Your task to perform on an android device: Is it going to rain today? Image 0: 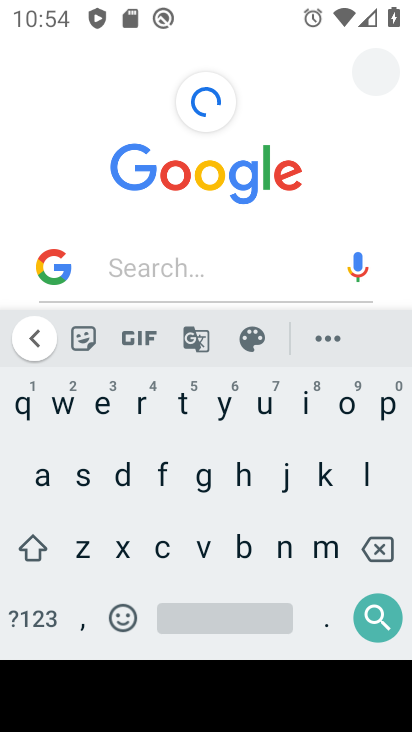
Step 0: press back button
Your task to perform on an android device: Is it going to rain today? Image 1: 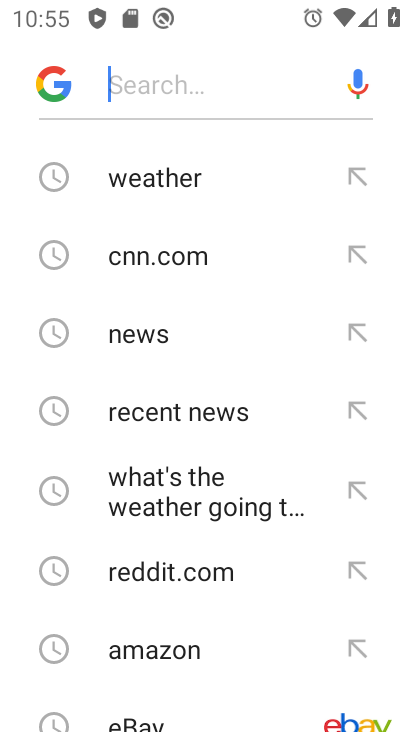
Step 1: press back button
Your task to perform on an android device: Is it going to rain today? Image 2: 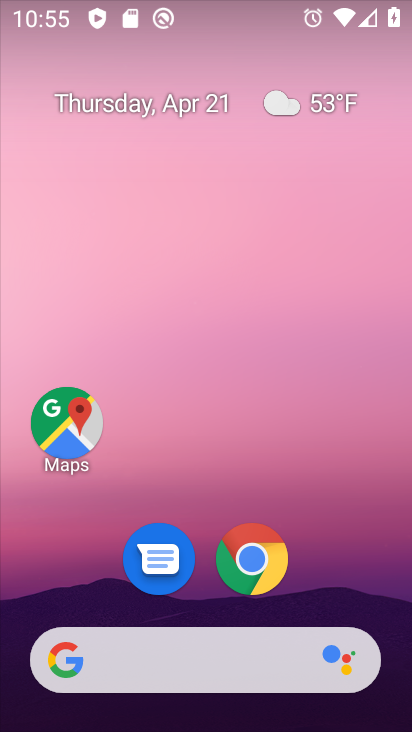
Step 2: drag from (226, 694) to (305, 121)
Your task to perform on an android device: Is it going to rain today? Image 3: 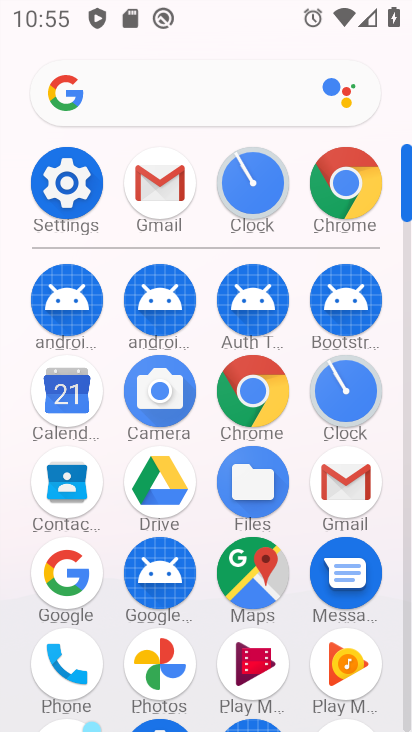
Step 3: click (231, 114)
Your task to perform on an android device: Is it going to rain today? Image 4: 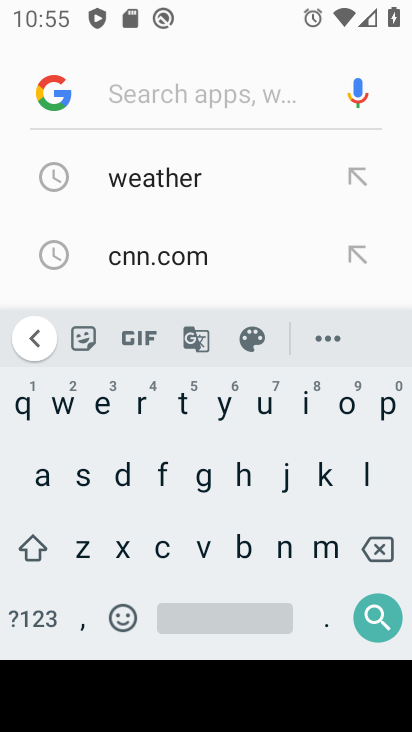
Step 4: click (165, 185)
Your task to perform on an android device: Is it going to rain today? Image 5: 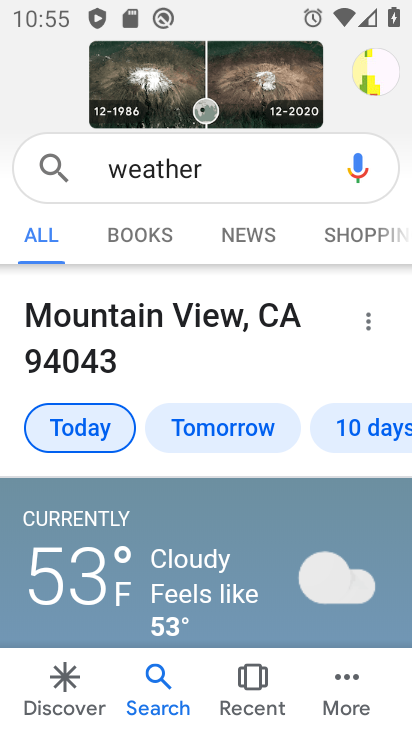
Step 5: task complete